Your task to perform on an android device: Clear all items from cart on newegg. Add "panasonic triple a" to the cart on newegg, then select checkout. Image 0: 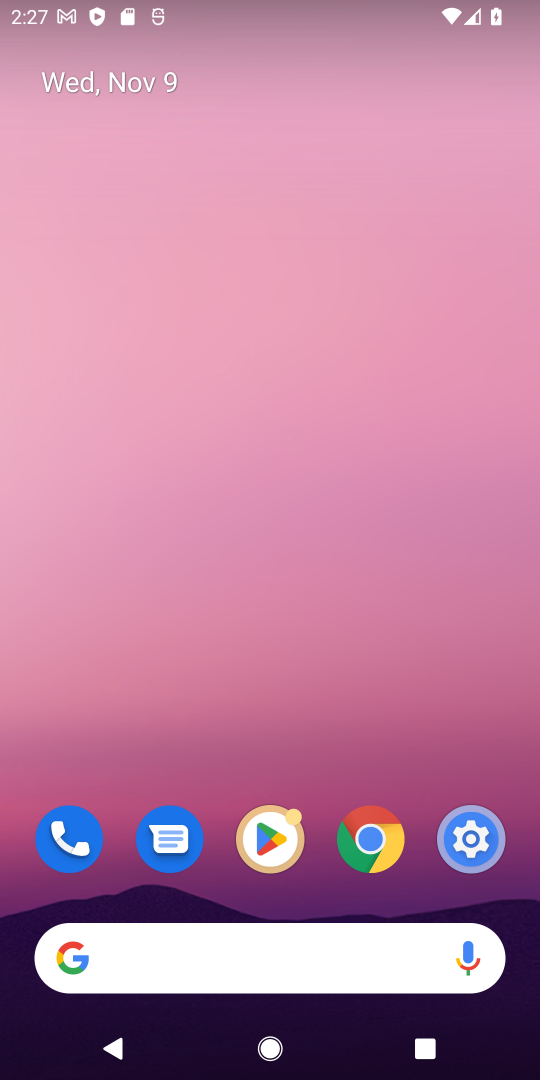
Step 0: click (366, 983)
Your task to perform on an android device: Clear all items from cart on newegg. Add "panasonic triple a" to the cart on newegg, then select checkout. Image 1: 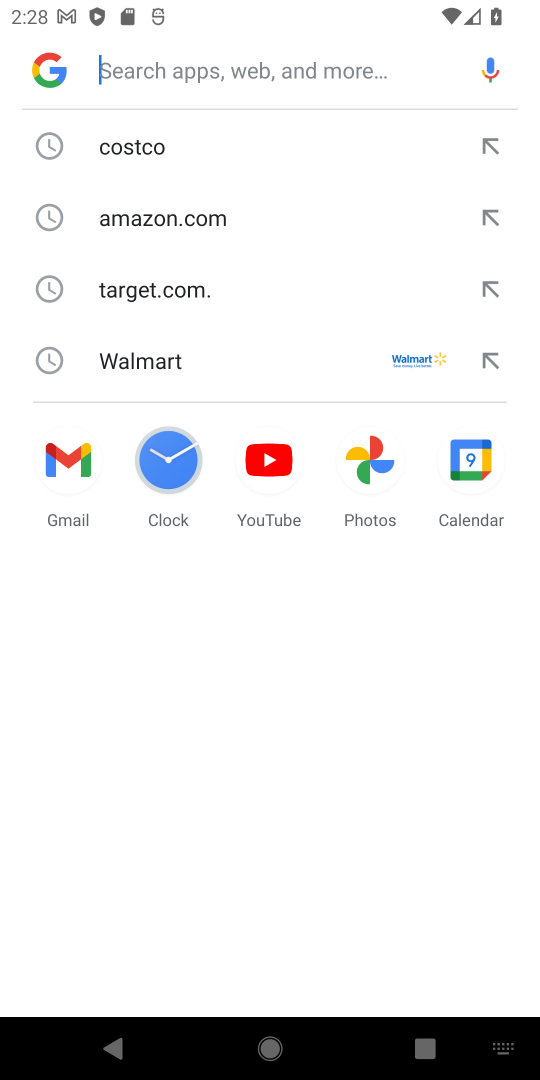
Step 1: type "newegg"
Your task to perform on an android device: Clear all items from cart on newegg. Add "panasonic triple a" to the cart on newegg, then select checkout. Image 2: 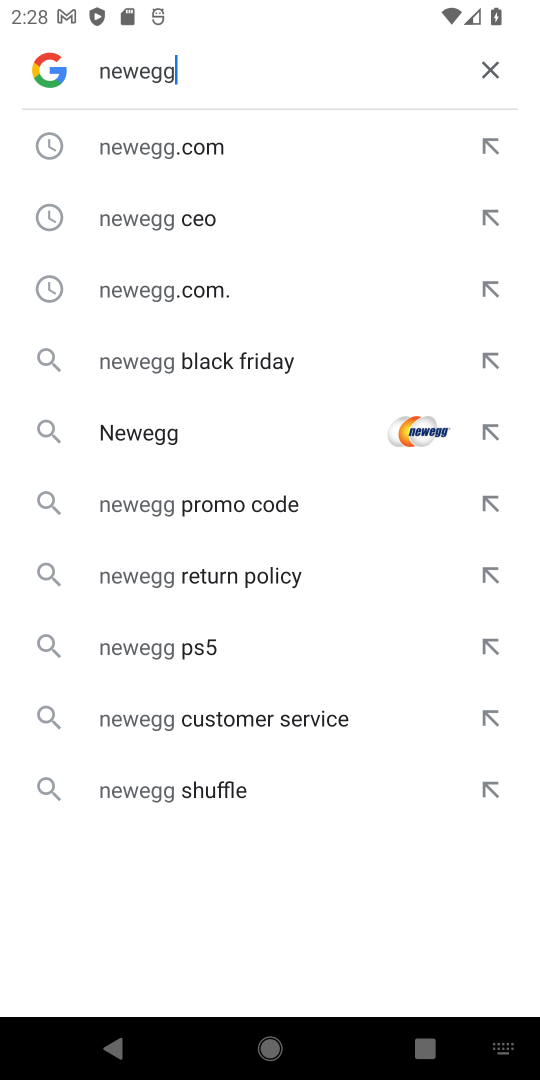
Step 2: click (202, 165)
Your task to perform on an android device: Clear all items from cart on newegg. Add "panasonic triple a" to the cart on newegg, then select checkout. Image 3: 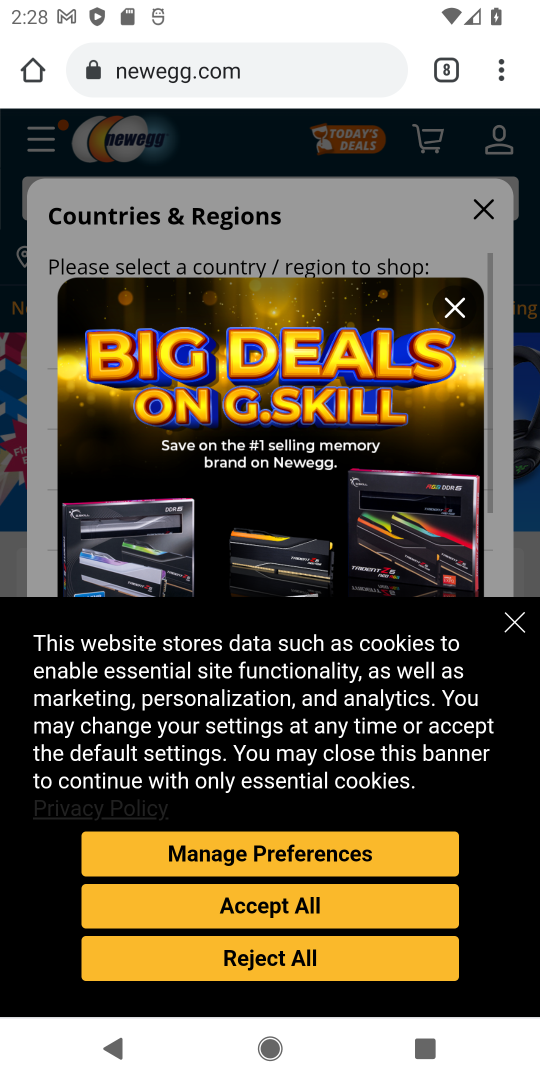
Step 3: click (339, 909)
Your task to perform on an android device: Clear all items from cart on newegg. Add "panasonic triple a" to the cart on newegg, then select checkout. Image 4: 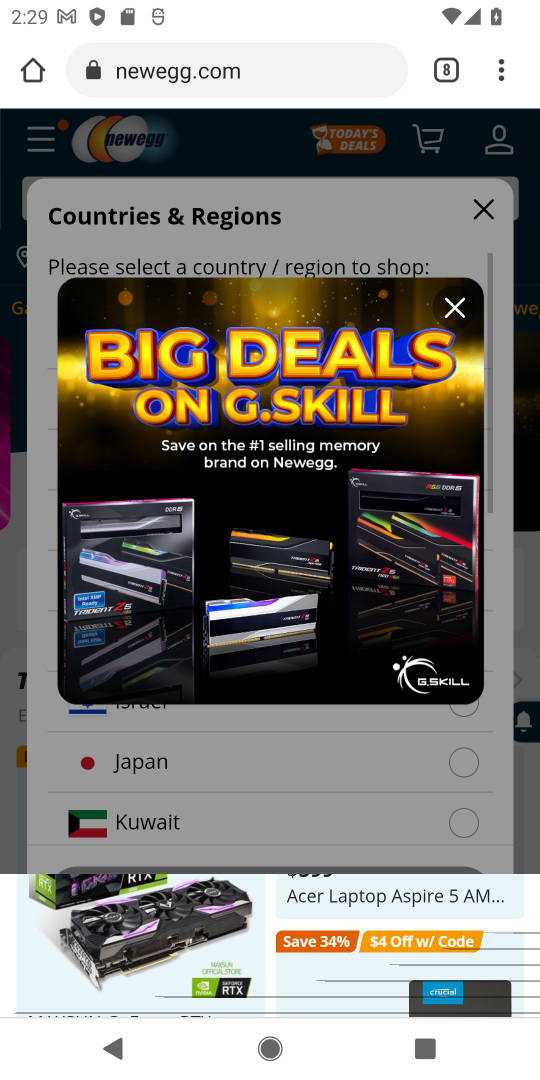
Step 4: task complete